Your task to perform on an android device: turn on translation in the chrome app Image 0: 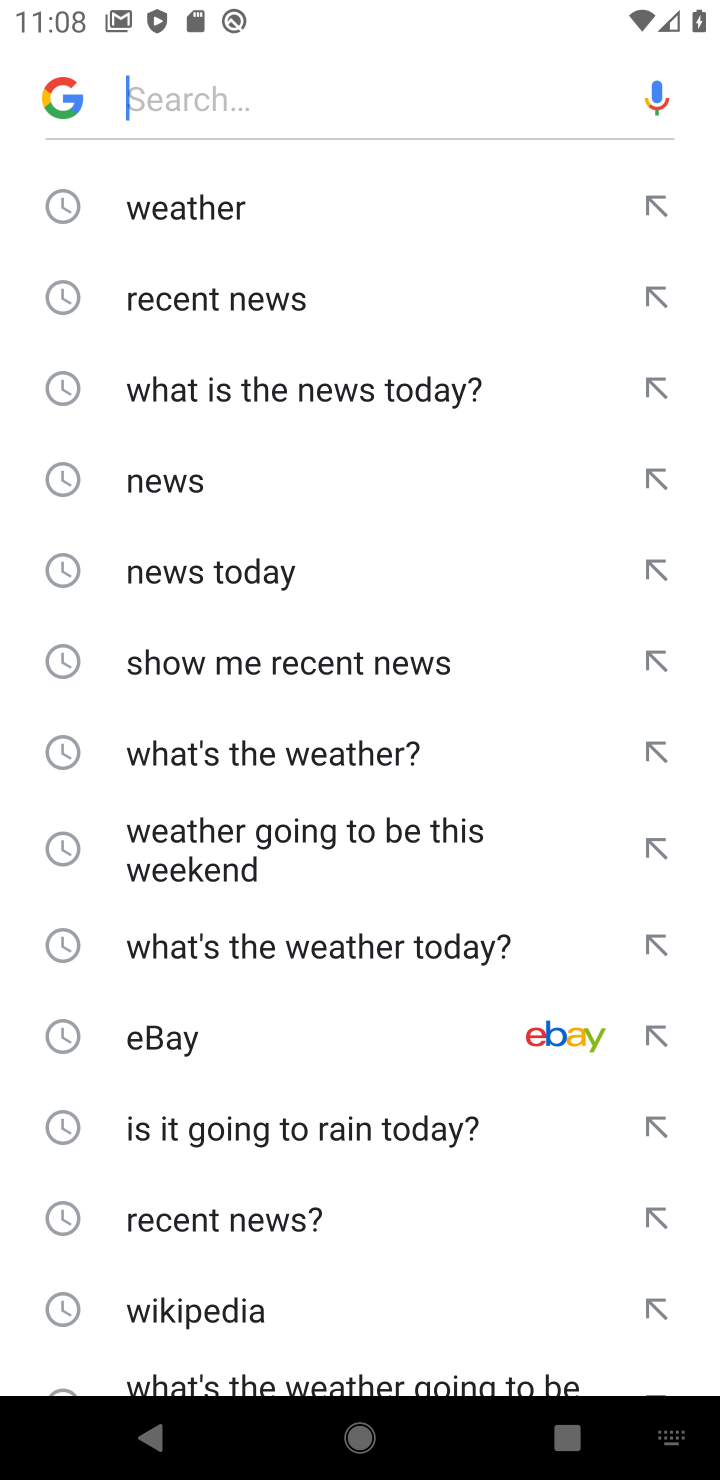
Step 0: press back button
Your task to perform on an android device: turn on translation in the chrome app Image 1: 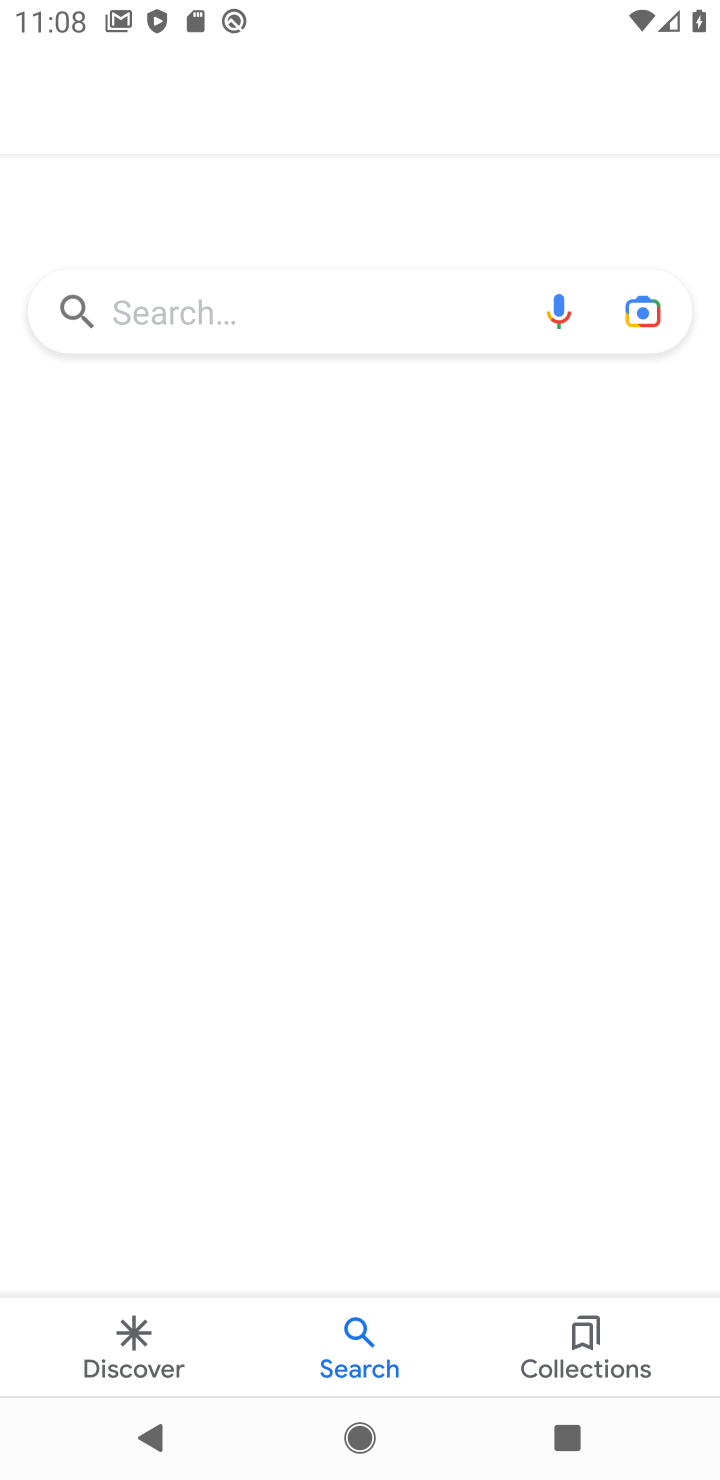
Step 1: press back button
Your task to perform on an android device: turn on translation in the chrome app Image 2: 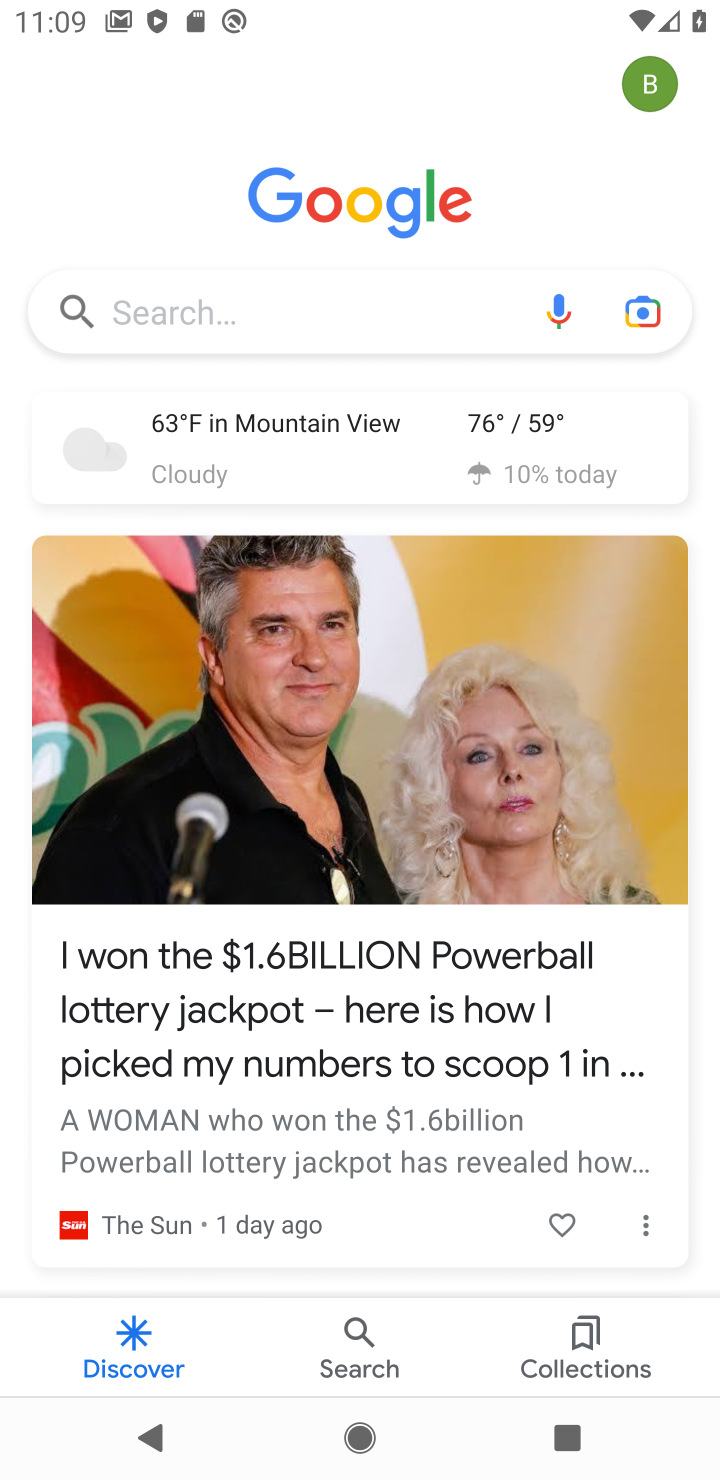
Step 2: press back button
Your task to perform on an android device: turn on translation in the chrome app Image 3: 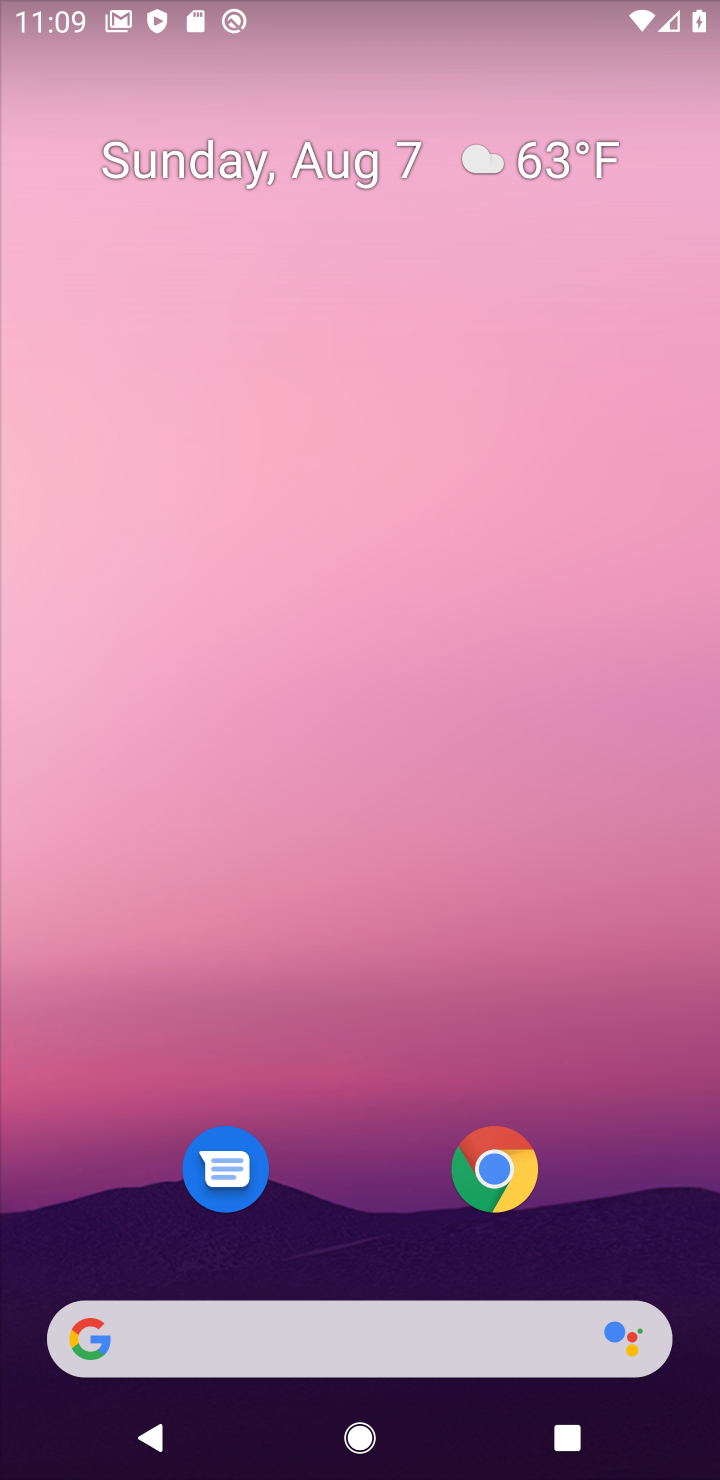
Step 3: click (480, 1188)
Your task to perform on an android device: turn on translation in the chrome app Image 4: 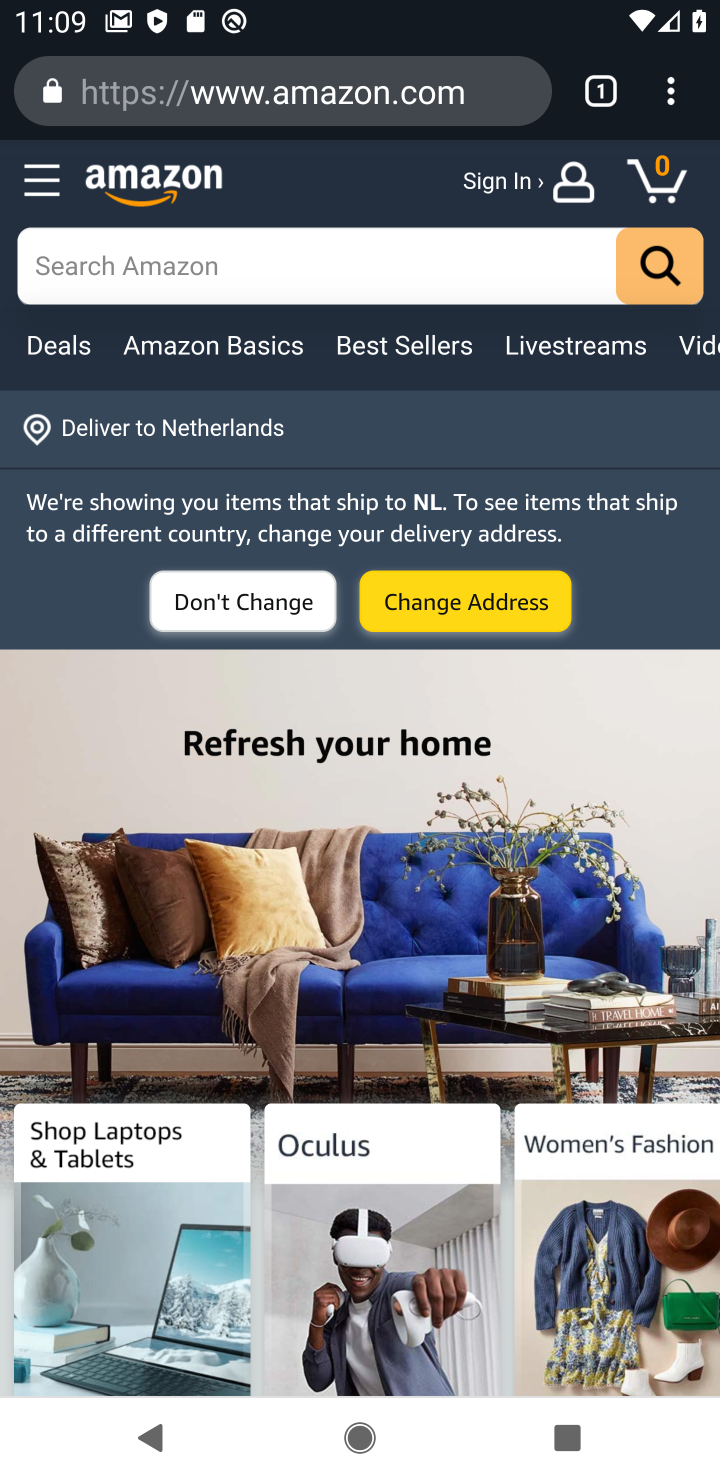
Step 4: drag from (679, 75) to (383, 1211)
Your task to perform on an android device: turn on translation in the chrome app Image 5: 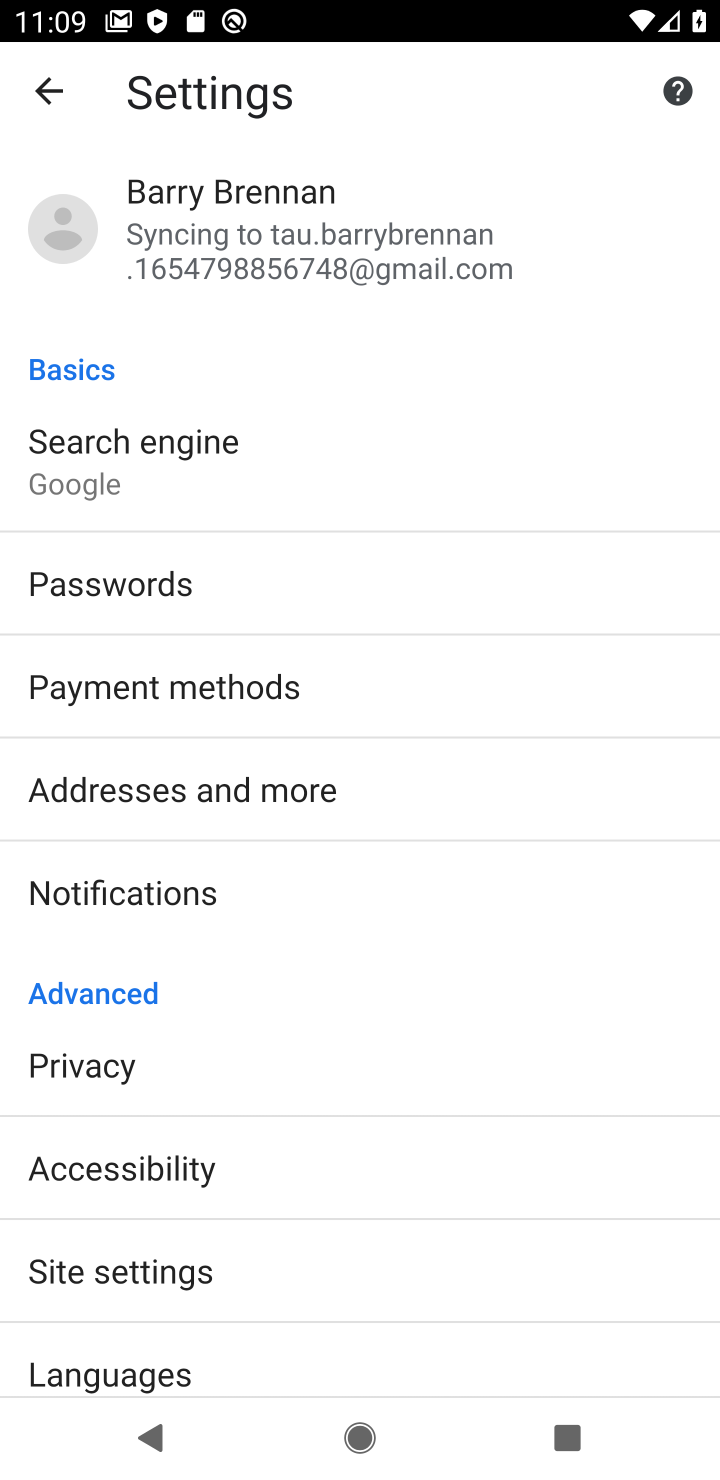
Step 5: click (141, 1377)
Your task to perform on an android device: turn on translation in the chrome app Image 6: 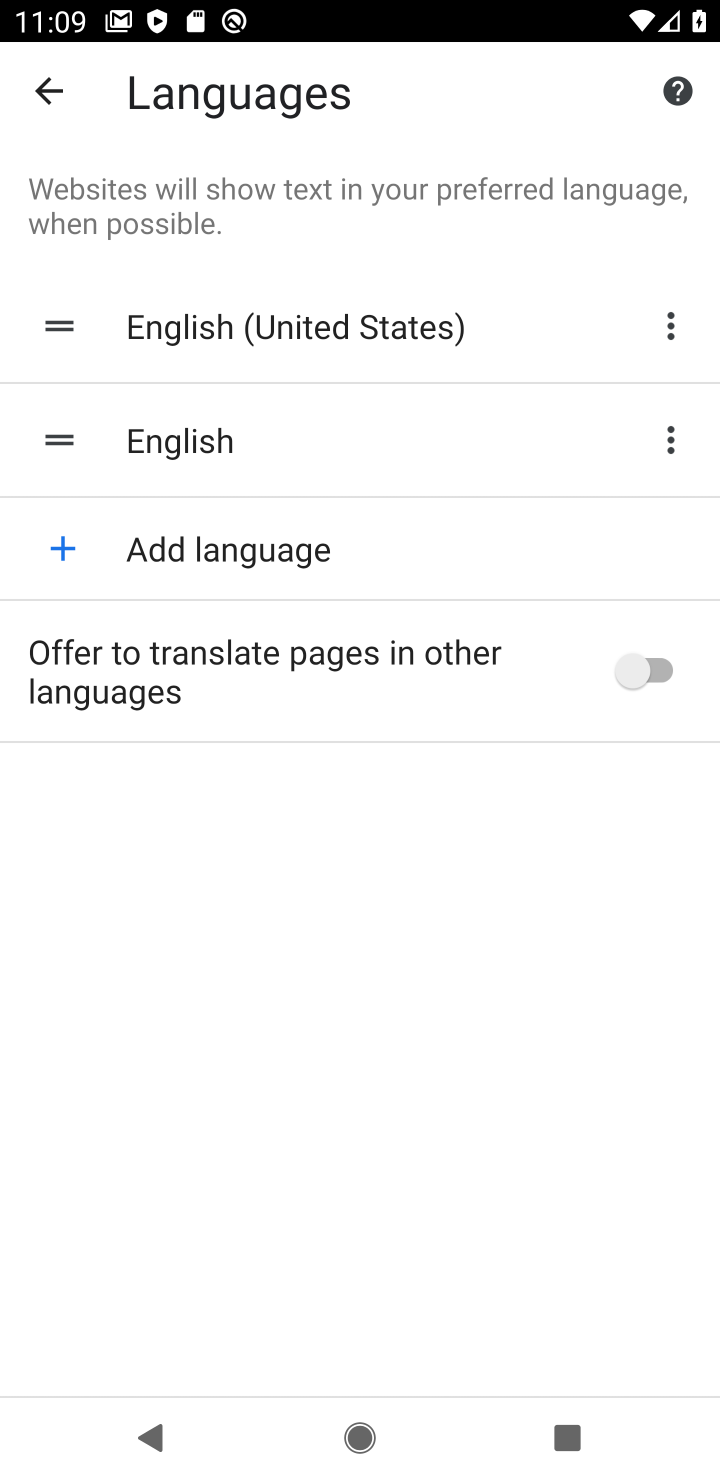
Step 6: click (610, 669)
Your task to perform on an android device: turn on translation in the chrome app Image 7: 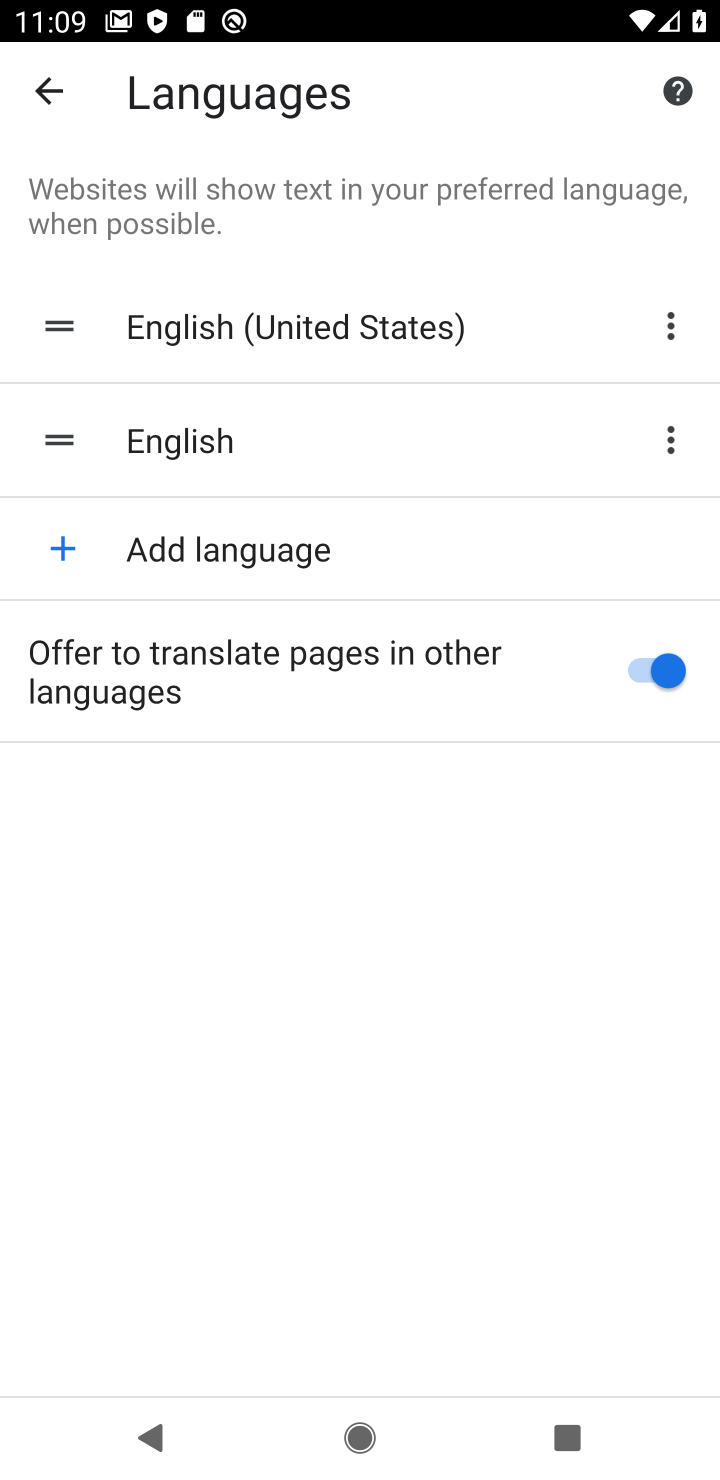
Step 7: task complete